Your task to perform on an android device: delete the emails in spam in the gmail app Image 0: 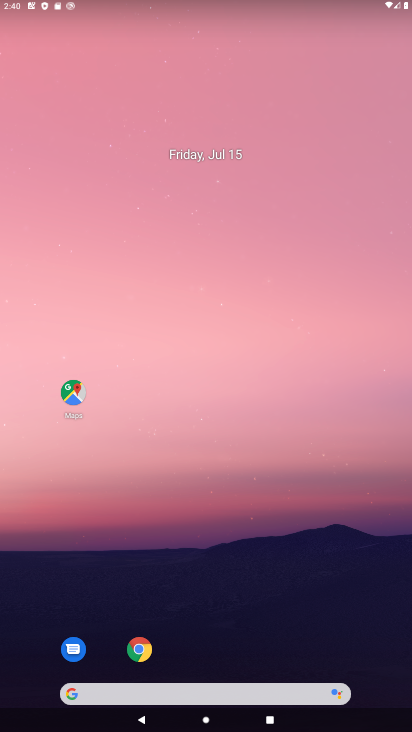
Step 0: press back button
Your task to perform on an android device: delete the emails in spam in the gmail app Image 1: 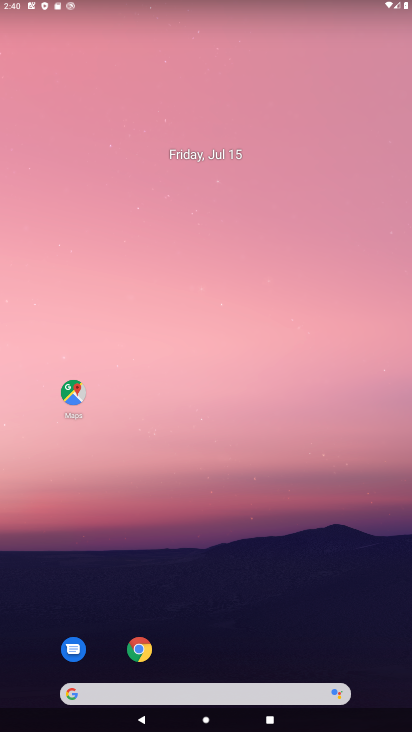
Step 1: drag from (229, 430) to (199, 226)
Your task to perform on an android device: delete the emails in spam in the gmail app Image 2: 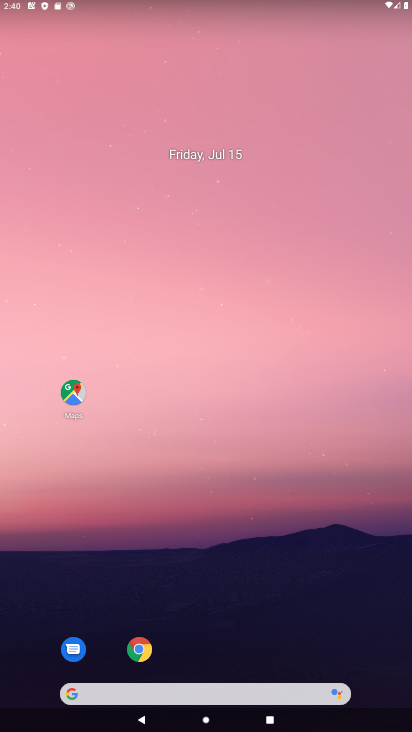
Step 2: drag from (245, 385) to (202, 66)
Your task to perform on an android device: delete the emails in spam in the gmail app Image 3: 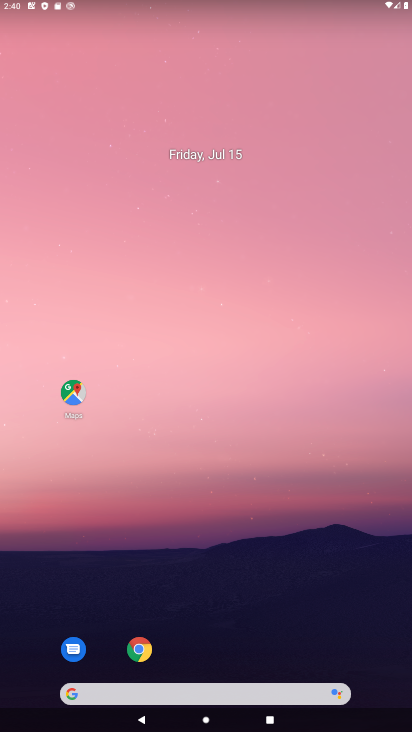
Step 3: drag from (222, 494) to (94, 20)
Your task to perform on an android device: delete the emails in spam in the gmail app Image 4: 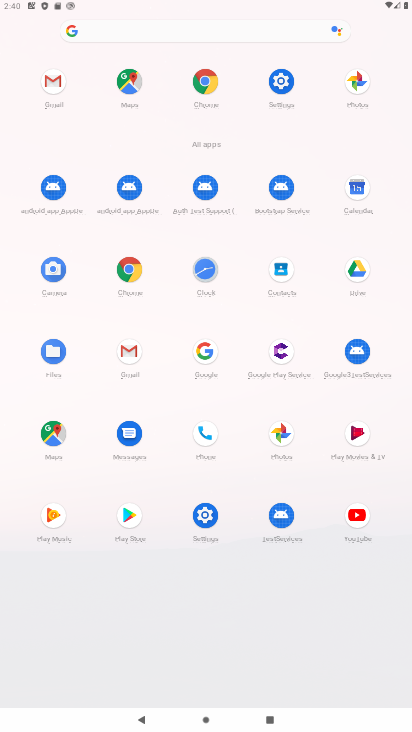
Step 4: click (132, 348)
Your task to perform on an android device: delete the emails in spam in the gmail app Image 5: 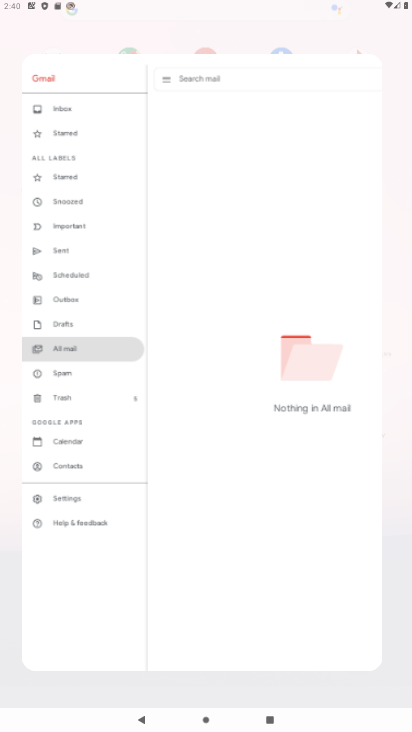
Step 5: click (132, 347)
Your task to perform on an android device: delete the emails in spam in the gmail app Image 6: 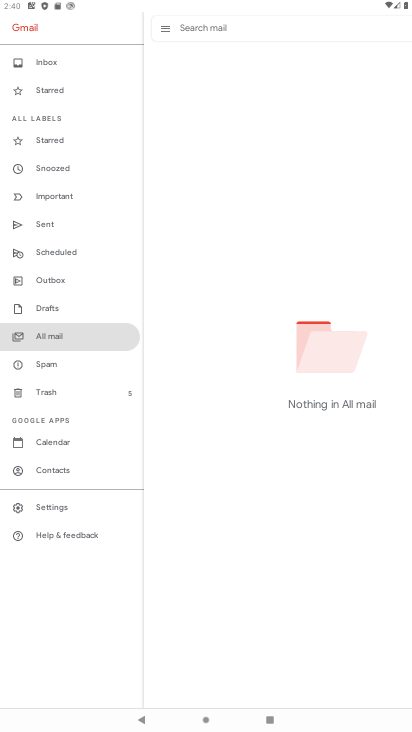
Step 6: click (43, 367)
Your task to perform on an android device: delete the emails in spam in the gmail app Image 7: 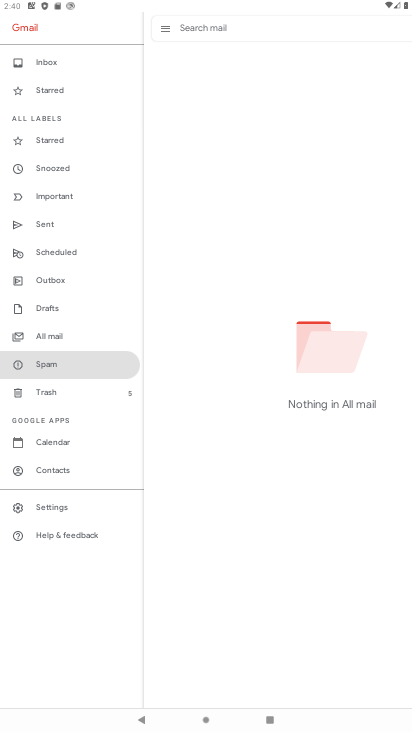
Step 7: click (43, 366)
Your task to perform on an android device: delete the emails in spam in the gmail app Image 8: 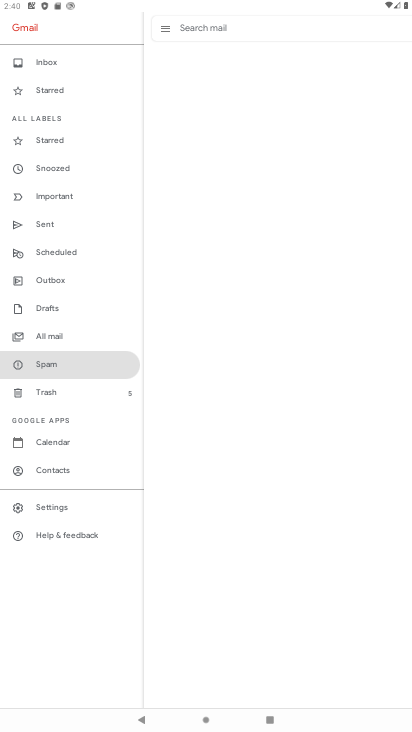
Step 8: click (43, 366)
Your task to perform on an android device: delete the emails in spam in the gmail app Image 9: 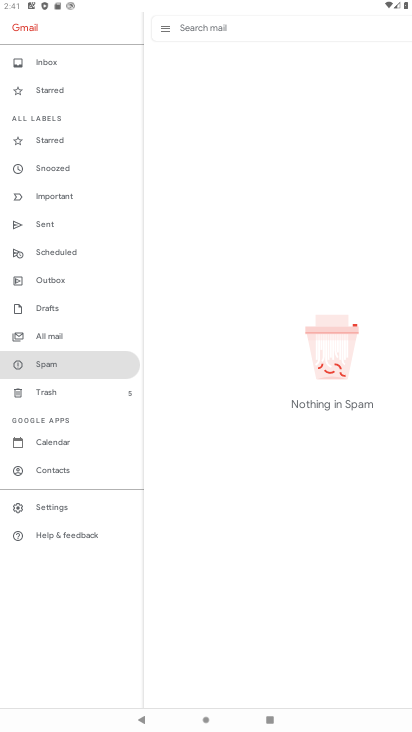
Step 9: task complete